Your task to perform on an android device: turn on location history Image 0: 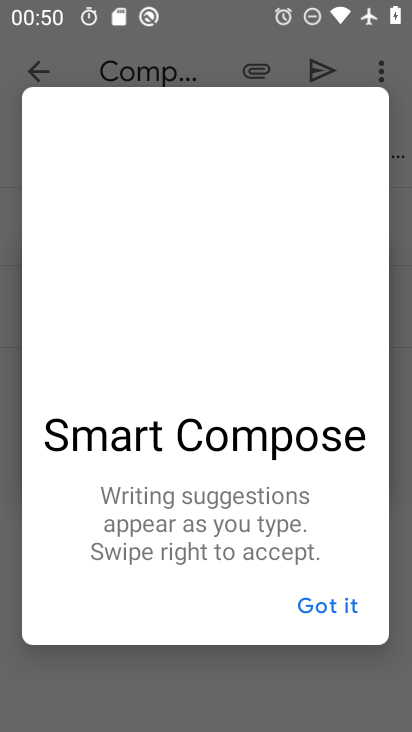
Step 0: press home button
Your task to perform on an android device: turn on location history Image 1: 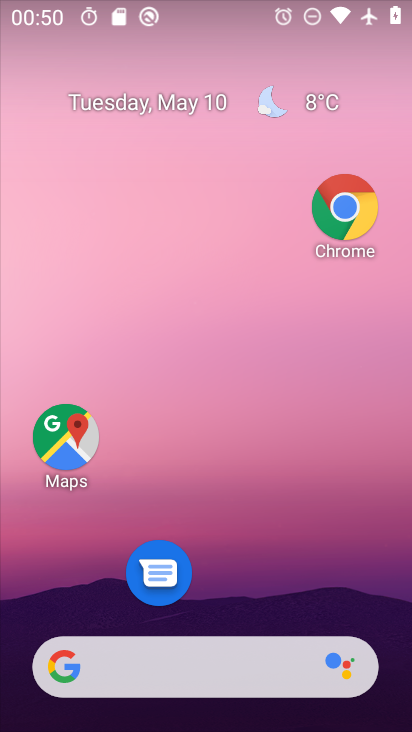
Step 1: drag from (269, 607) to (209, 95)
Your task to perform on an android device: turn on location history Image 2: 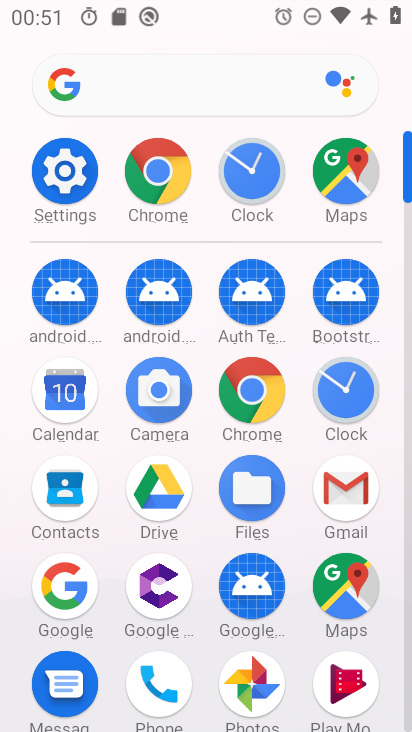
Step 2: click (68, 176)
Your task to perform on an android device: turn on location history Image 3: 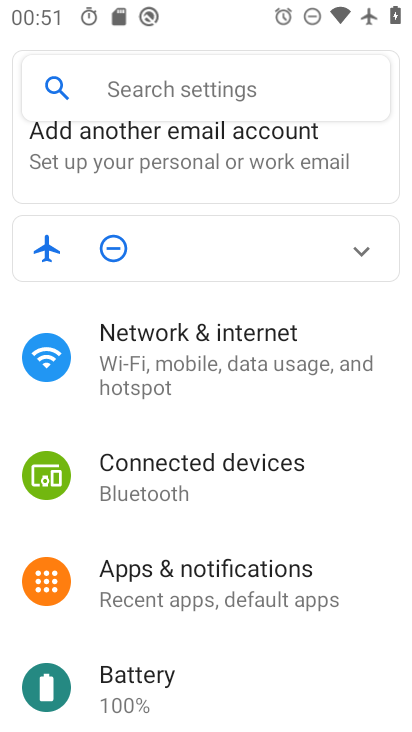
Step 3: drag from (196, 650) to (180, 219)
Your task to perform on an android device: turn on location history Image 4: 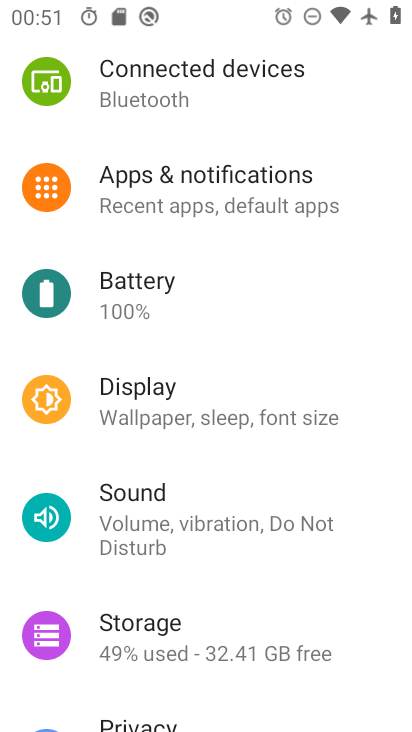
Step 4: drag from (210, 634) to (197, 280)
Your task to perform on an android device: turn on location history Image 5: 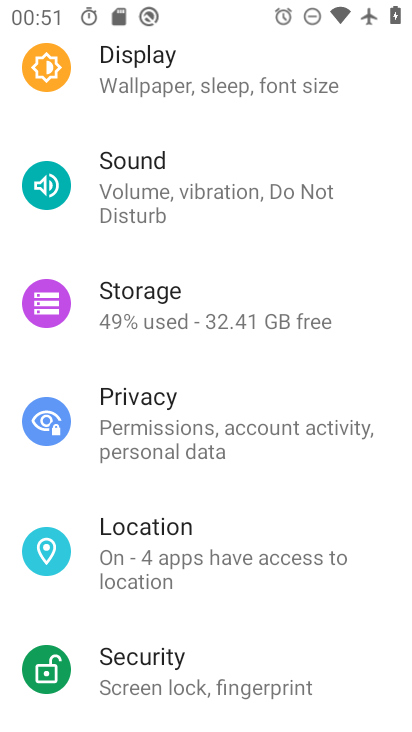
Step 5: click (213, 558)
Your task to perform on an android device: turn on location history Image 6: 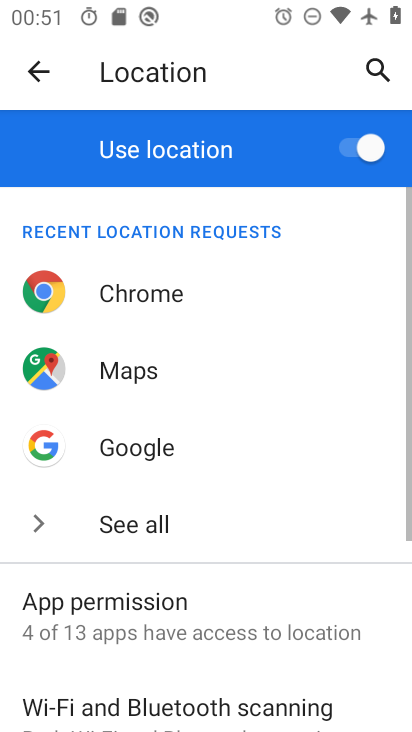
Step 6: drag from (321, 611) to (312, 171)
Your task to perform on an android device: turn on location history Image 7: 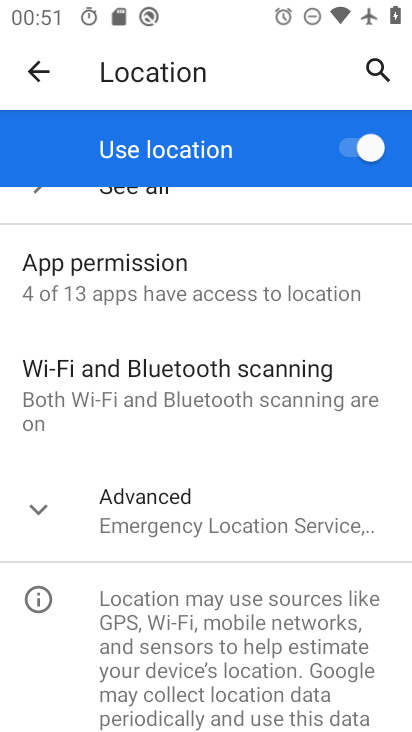
Step 7: click (205, 516)
Your task to perform on an android device: turn on location history Image 8: 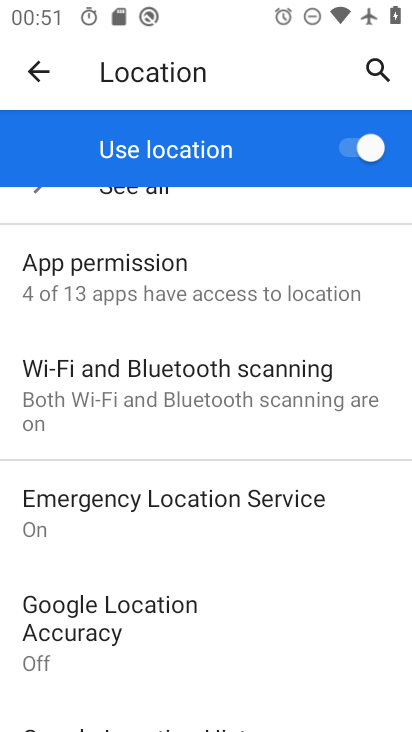
Step 8: drag from (247, 647) to (248, 280)
Your task to perform on an android device: turn on location history Image 9: 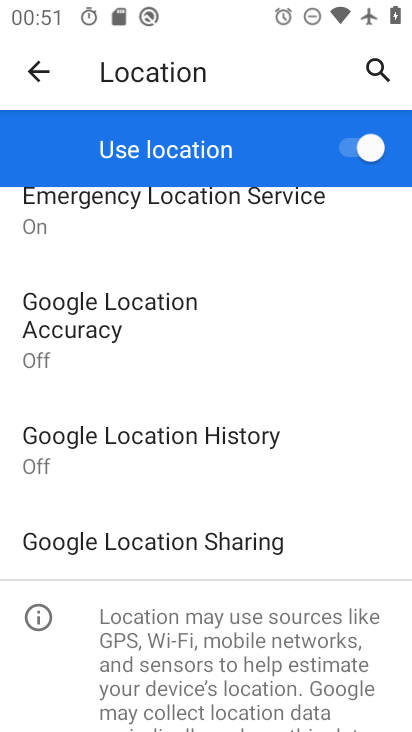
Step 9: click (231, 445)
Your task to perform on an android device: turn on location history Image 10: 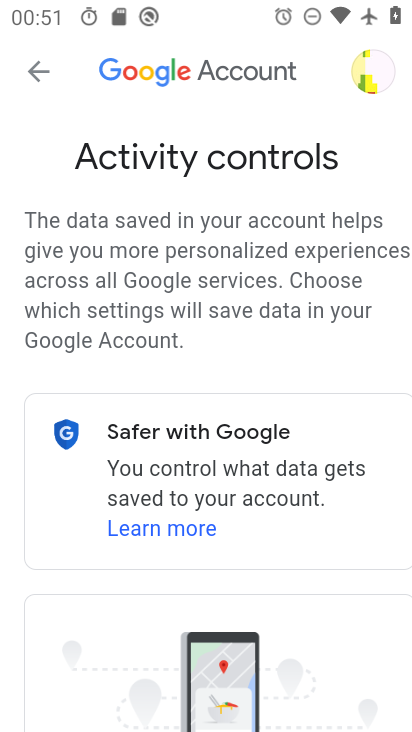
Step 10: task complete